Your task to perform on an android device: check out phone information Image 0: 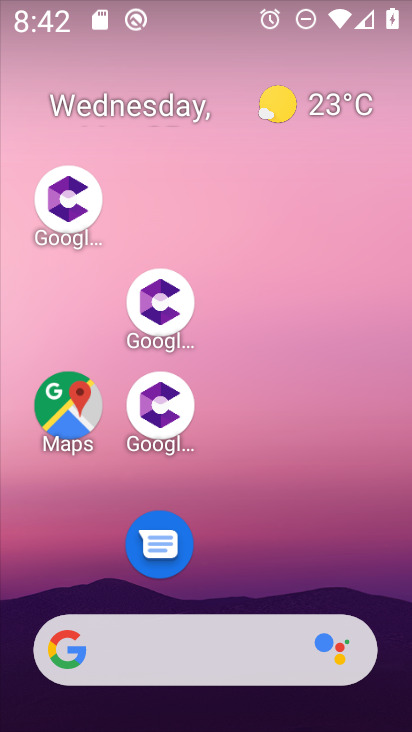
Step 0: drag from (267, 542) to (166, 126)
Your task to perform on an android device: check out phone information Image 1: 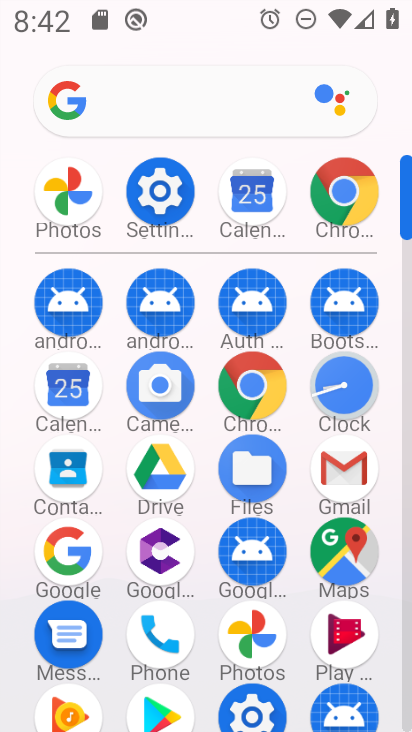
Step 1: click (161, 193)
Your task to perform on an android device: check out phone information Image 2: 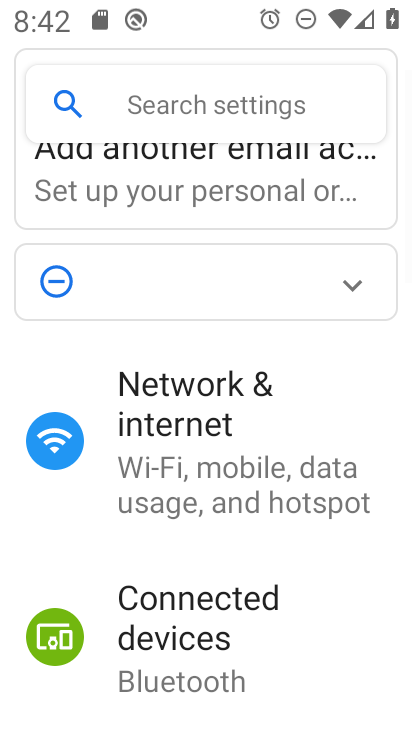
Step 2: drag from (221, 540) to (144, 221)
Your task to perform on an android device: check out phone information Image 3: 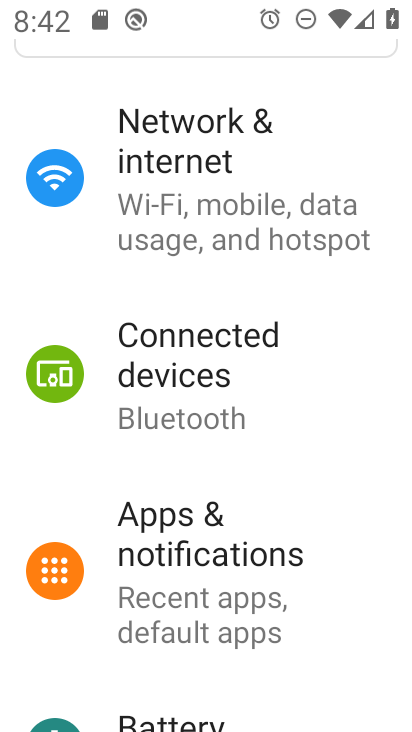
Step 3: drag from (281, 623) to (227, 357)
Your task to perform on an android device: check out phone information Image 4: 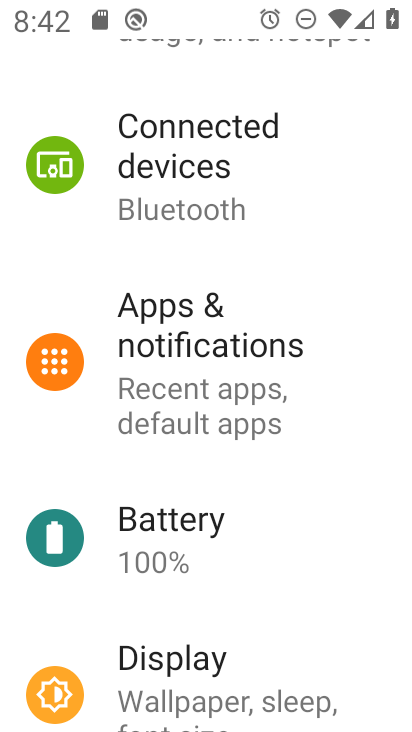
Step 4: drag from (304, 525) to (217, 108)
Your task to perform on an android device: check out phone information Image 5: 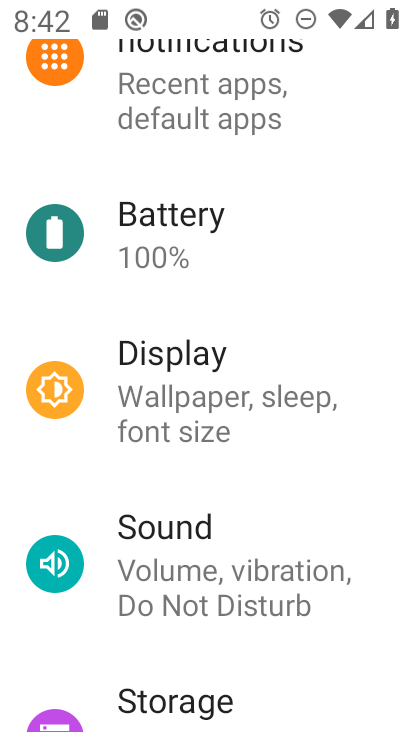
Step 5: drag from (241, 455) to (191, 125)
Your task to perform on an android device: check out phone information Image 6: 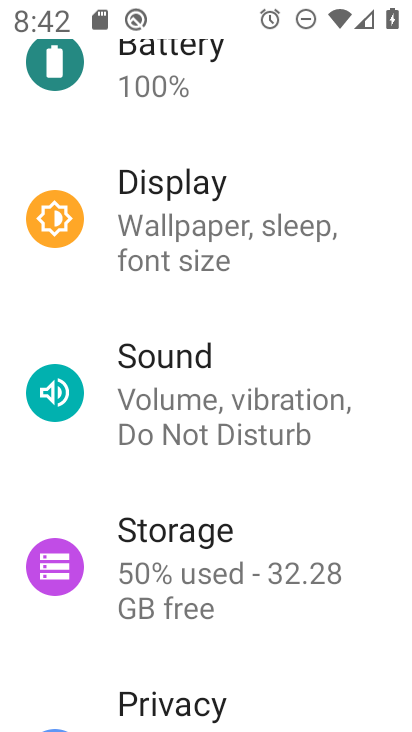
Step 6: drag from (233, 631) to (192, 259)
Your task to perform on an android device: check out phone information Image 7: 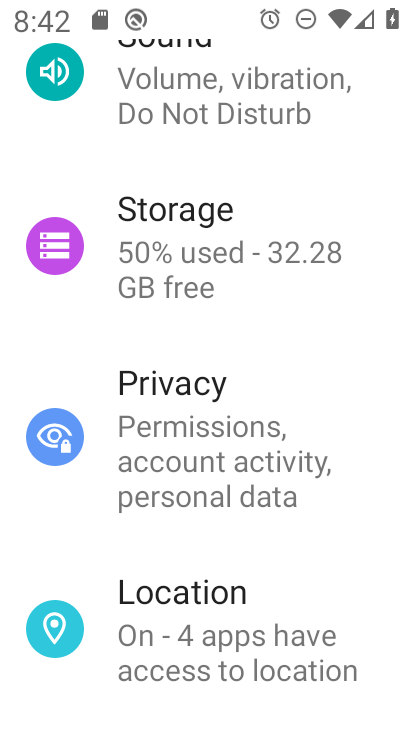
Step 7: drag from (258, 544) to (184, 204)
Your task to perform on an android device: check out phone information Image 8: 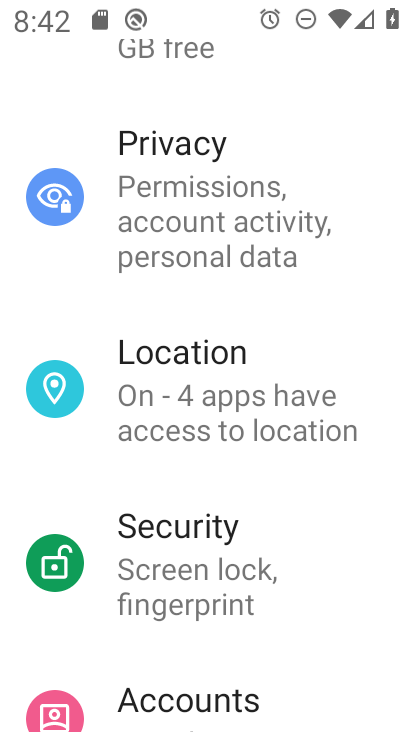
Step 8: drag from (222, 469) to (169, 176)
Your task to perform on an android device: check out phone information Image 9: 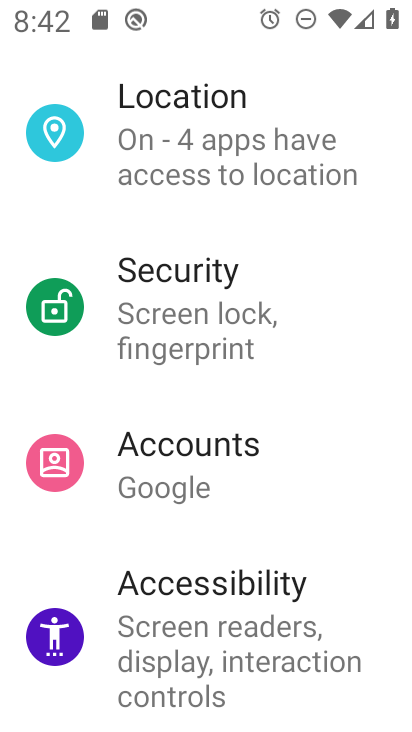
Step 9: drag from (228, 586) to (162, 216)
Your task to perform on an android device: check out phone information Image 10: 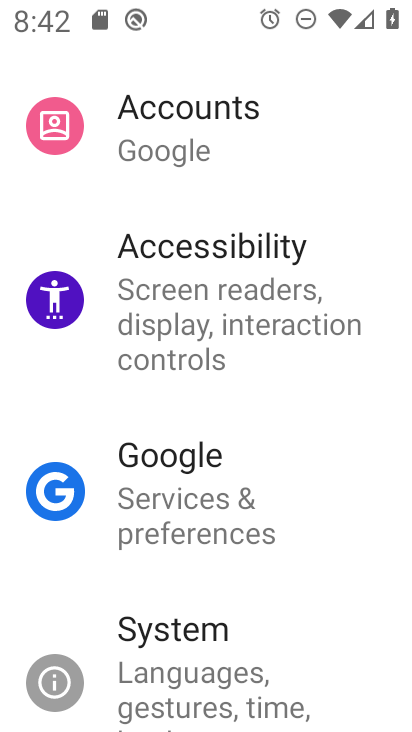
Step 10: drag from (214, 570) to (113, 172)
Your task to perform on an android device: check out phone information Image 11: 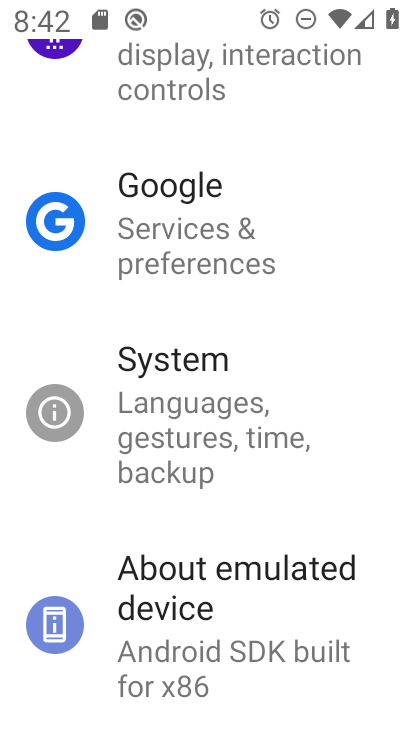
Step 11: drag from (180, 519) to (130, 157)
Your task to perform on an android device: check out phone information Image 12: 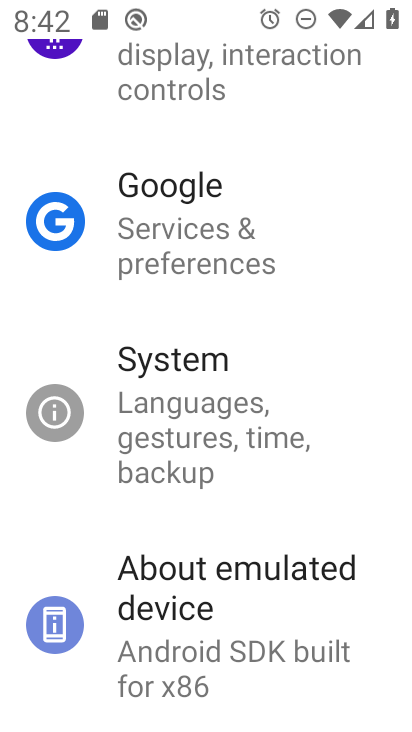
Step 12: click (187, 582)
Your task to perform on an android device: check out phone information Image 13: 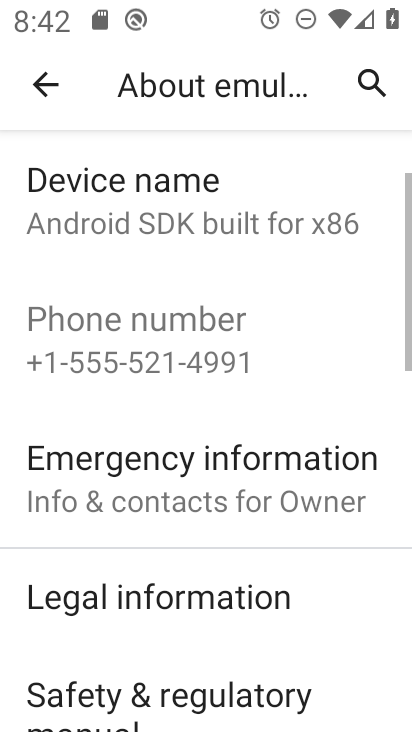
Step 13: task complete